Your task to perform on an android device: turn off data saver in the chrome app Image 0: 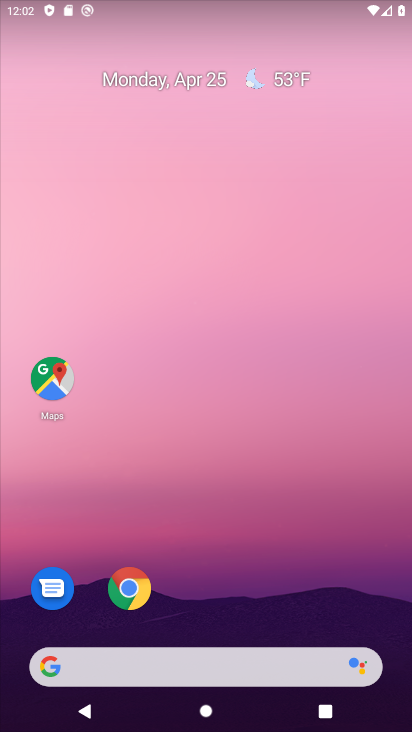
Step 0: drag from (274, 599) to (226, 114)
Your task to perform on an android device: turn off data saver in the chrome app Image 1: 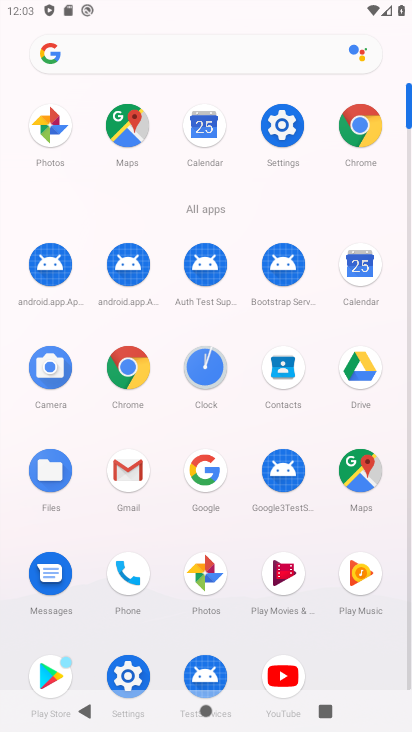
Step 1: click (370, 128)
Your task to perform on an android device: turn off data saver in the chrome app Image 2: 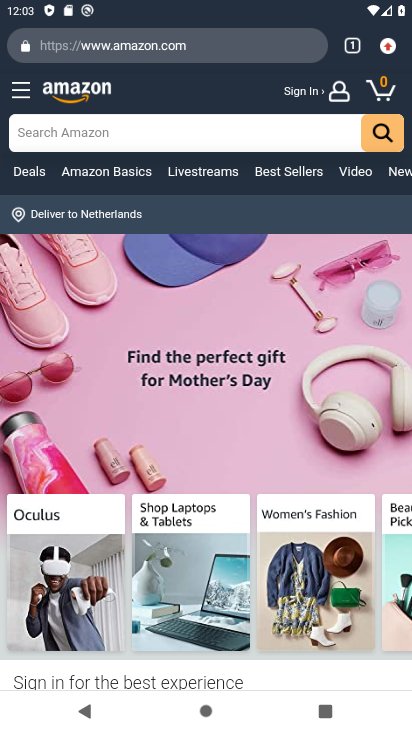
Step 2: drag from (385, 69) to (359, 585)
Your task to perform on an android device: turn off data saver in the chrome app Image 3: 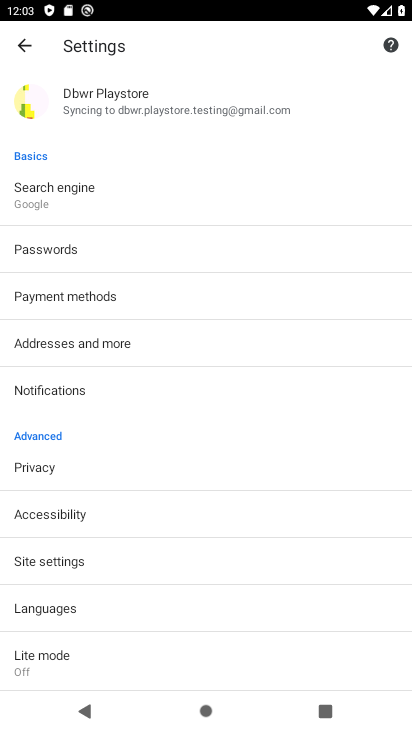
Step 3: click (193, 671)
Your task to perform on an android device: turn off data saver in the chrome app Image 4: 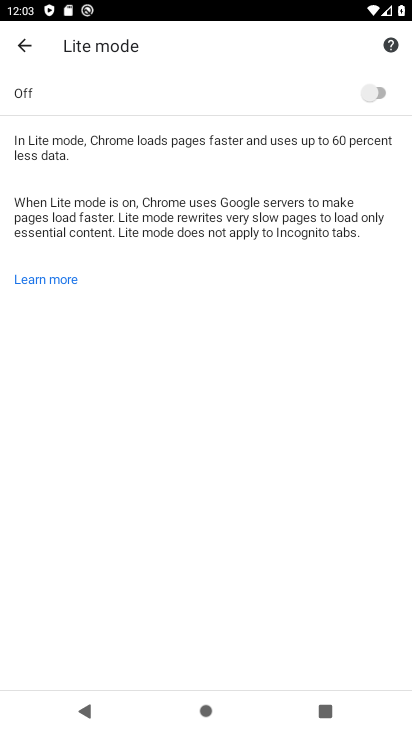
Step 4: task complete